Your task to perform on an android device: toggle show notifications on the lock screen Image 0: 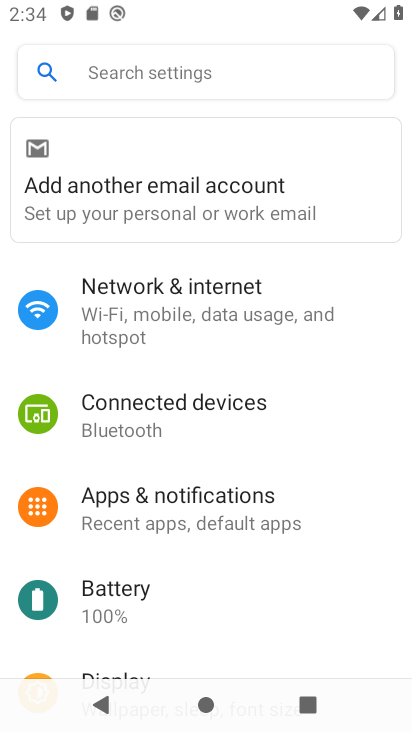
Step 0: click (261, 501)
Your task to perform on an android device: toggle show notifications on the lock screen Image 1: 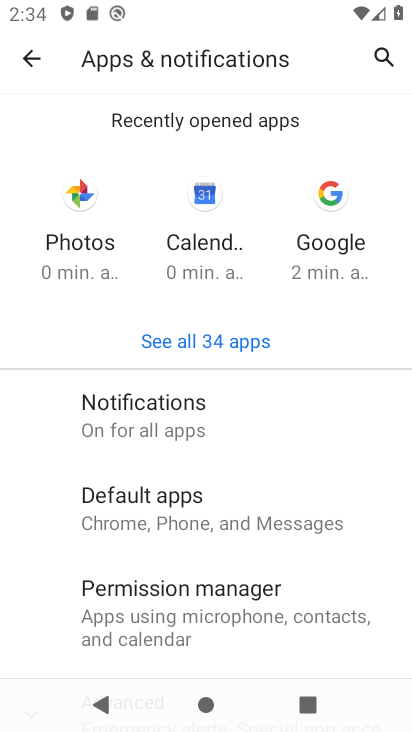
Step 1: click (216, 410)
Your task to perform on an android device: toggle show notifications on the lock screen Image 2: 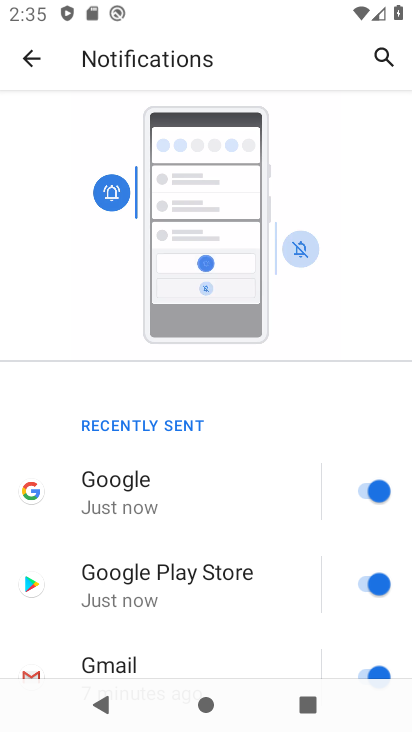
Step 2: drag from (226, 644) to (242, 163)
Your task to perform on an android device: toggle show notifications on the lock screen Image 3: 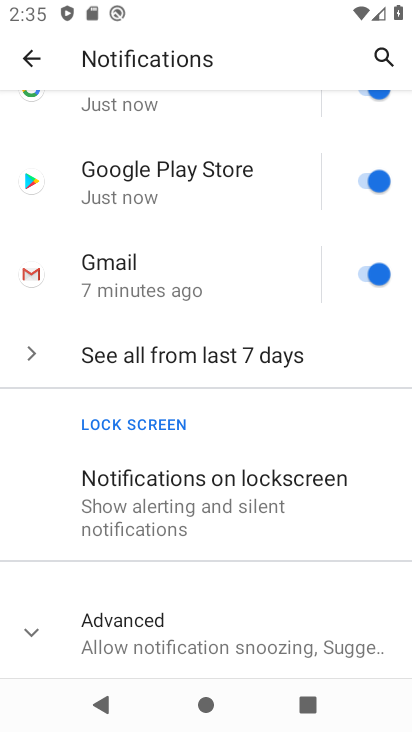
Step 3: click (247, 515)
Your task to perform on an android device: toggle show notifications on the lock screen Image 4: 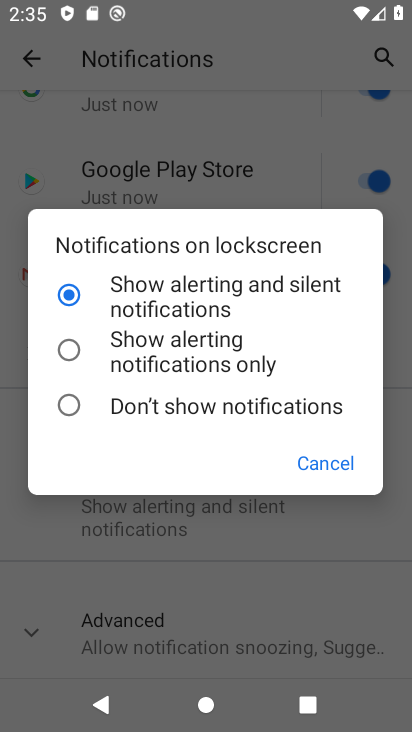
Step 4: click (65, 343)
Your task to perform on an android device: toggle show notifications on the lock screen Image 5: 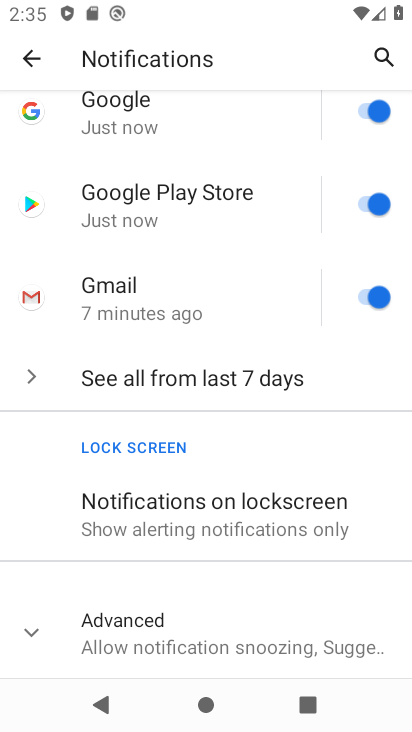
Step 5: task complete